Your task to perform on an android device: What is the recent news? Image 0: 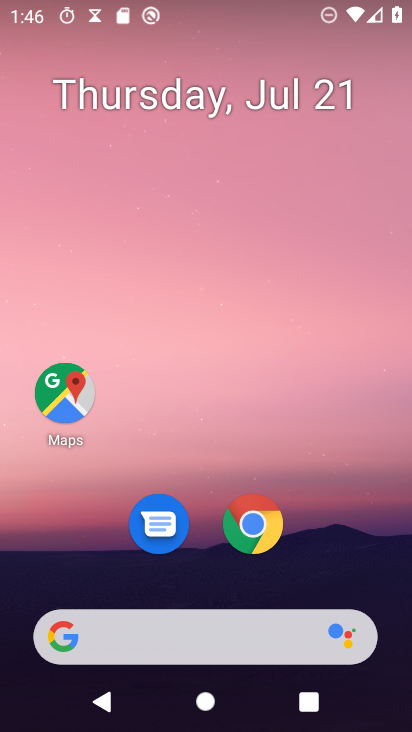
Step 0: click (165, 632)
Your task to perform on an android device: What is the recent news? Image 1: 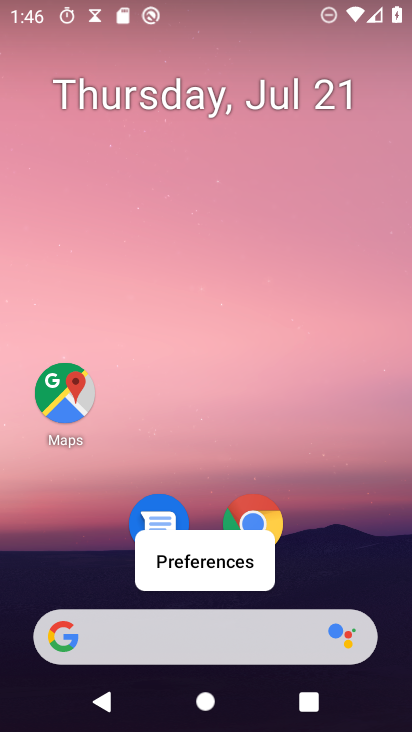
Step 1: click (144, 644)
Your task to perform on an android device: What is the recent news? Image 2: 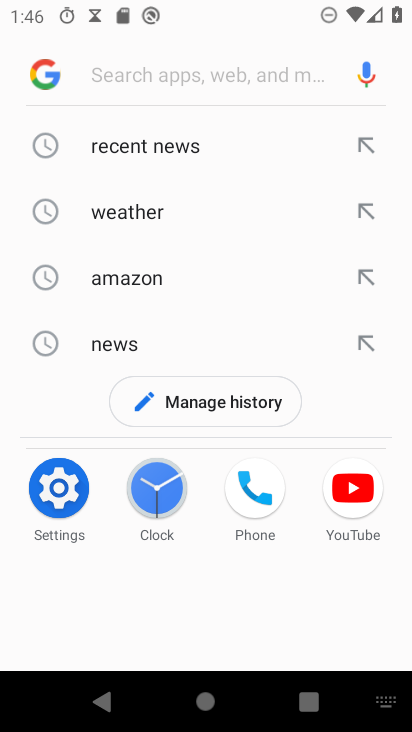
Step 2: click (122, 149)
Your task to perform on an android device: What is the recent news? Image 3: 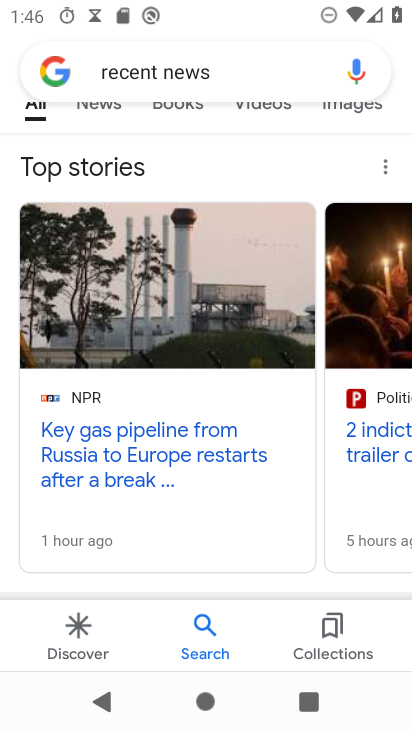
Step 3: click (106, 105)
Your task to perform on an android device: What is the recent news? Image 4: 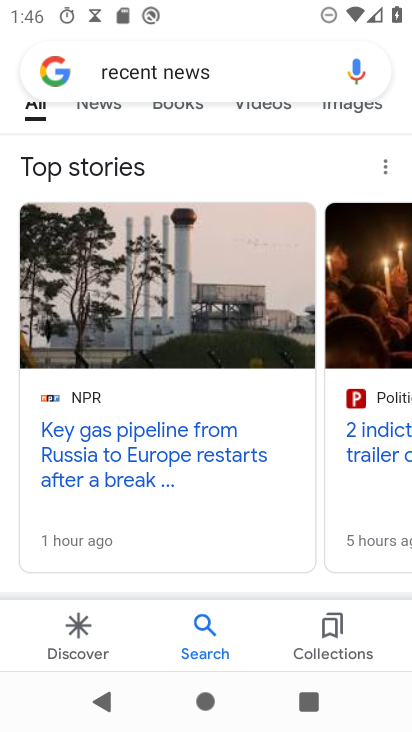
Step 4: drag from (219, 165) to (145, 533)
Your task to perform on an android device: What is the recent news? Image 5: 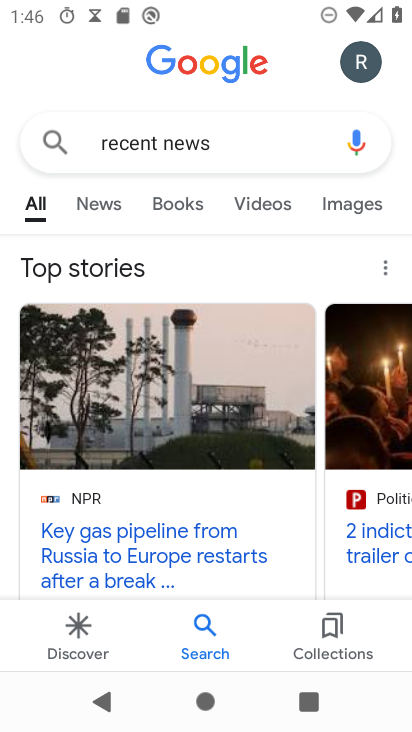
Step 5: click (110, 199)
Your task to perform on an android device: What is the recent news? Image 6: 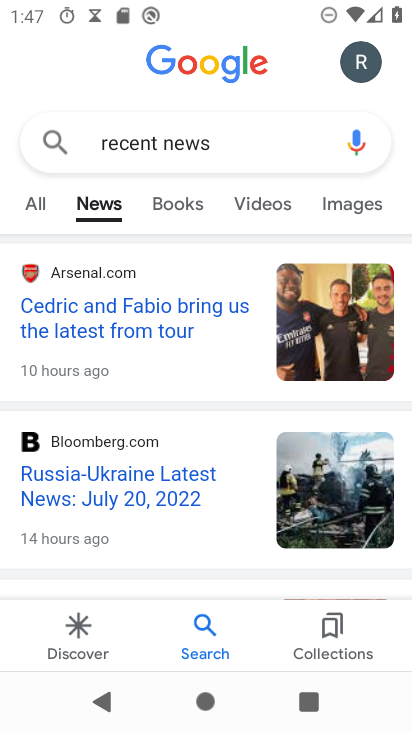
Step 6: task complete